Your task to perform on an android device: Open the map Image 0: 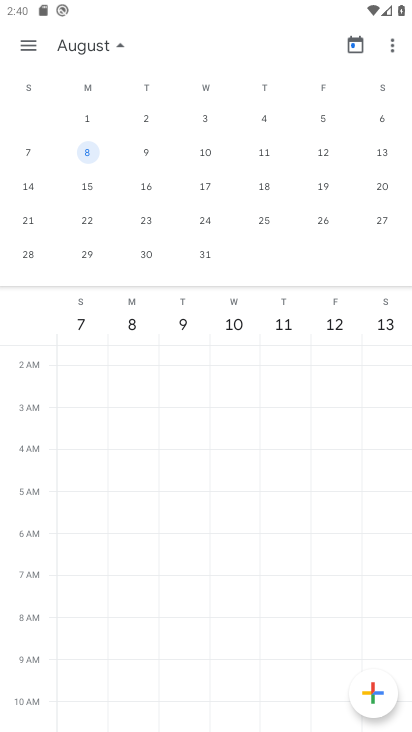
Step 0: press home button
Your task to perform on an android device: Open the map Image 1: 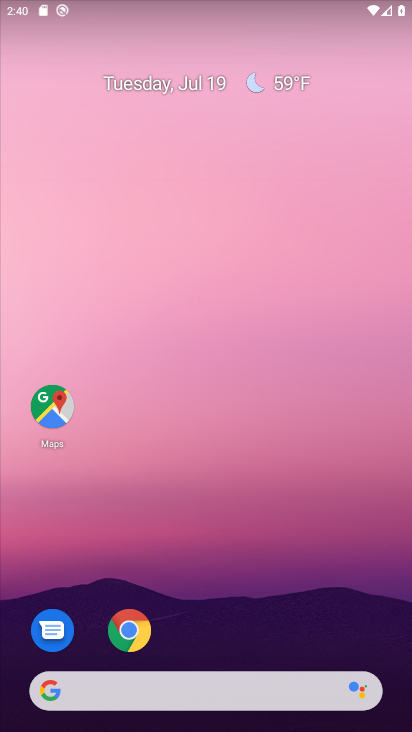
Step 1: click (54, 397)
Your task to perform on an android device: Open the map Image 2: 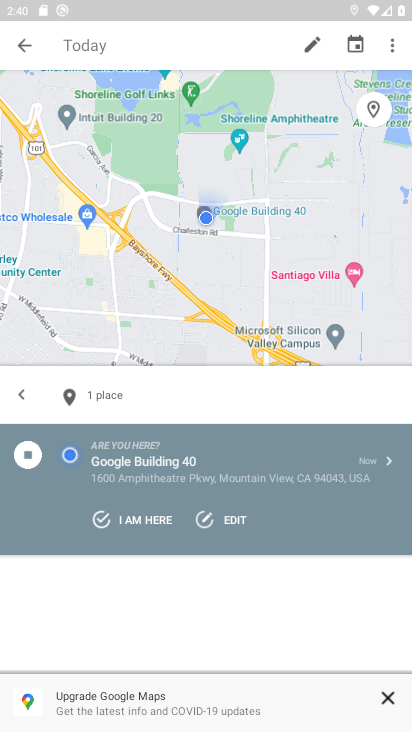
Step 2: task complete